Your task to perform on an android device: toggle sleep mode Image 0: 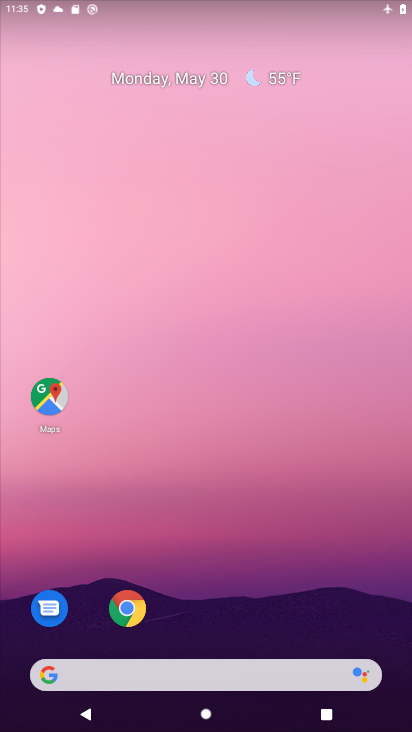
Step 0: drag from (278, 630) to (322, 23)
Your task to perform on an android device: toggle sleep mode Image 1: 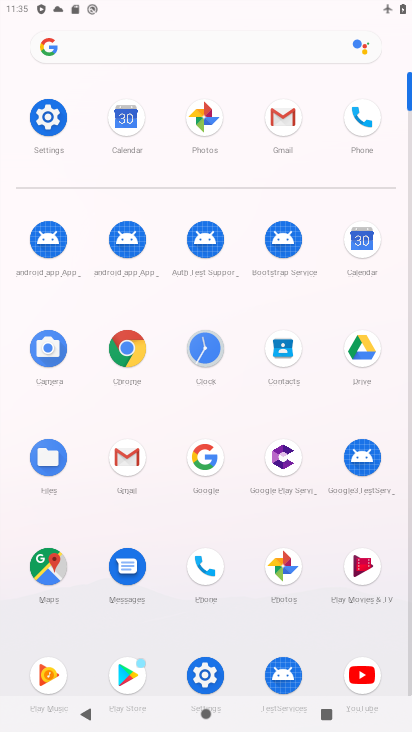
Step 1: click (47, 121)
Your task to perform on an android device: toggle sleep mode Image 2: 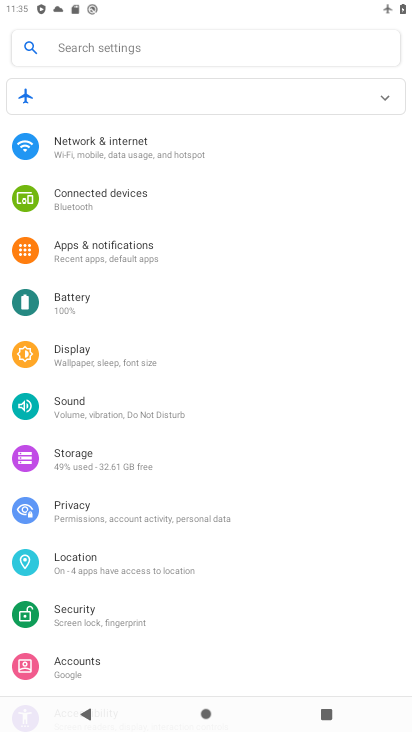
Step 2: click (91, 357)
Your task to perform on an android device: toggle sleep mode Image 3: 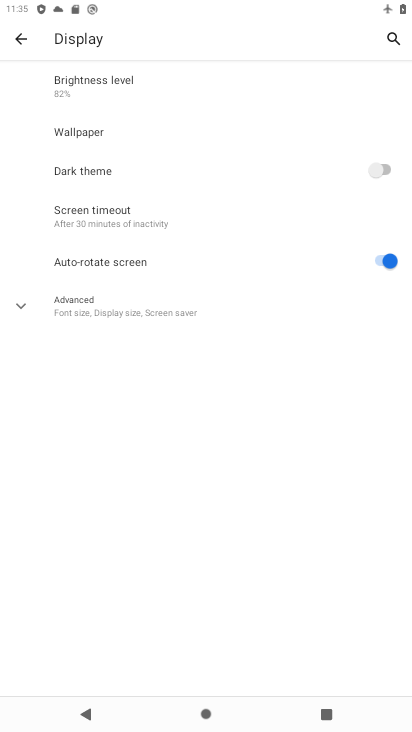
Step 3: click (23, 307)
Your task to perform on an android device: toggle sleep mode Image 4: 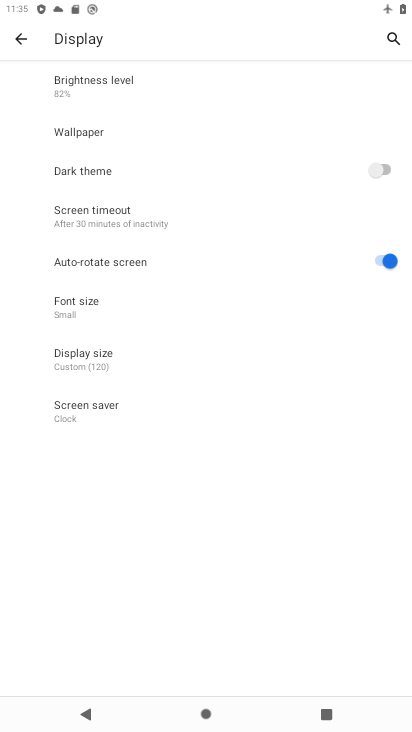
Step 4: task complete